Your task to perform on an android device: Open Google Chrome and click the shortcut for Amazon.com Image 0: 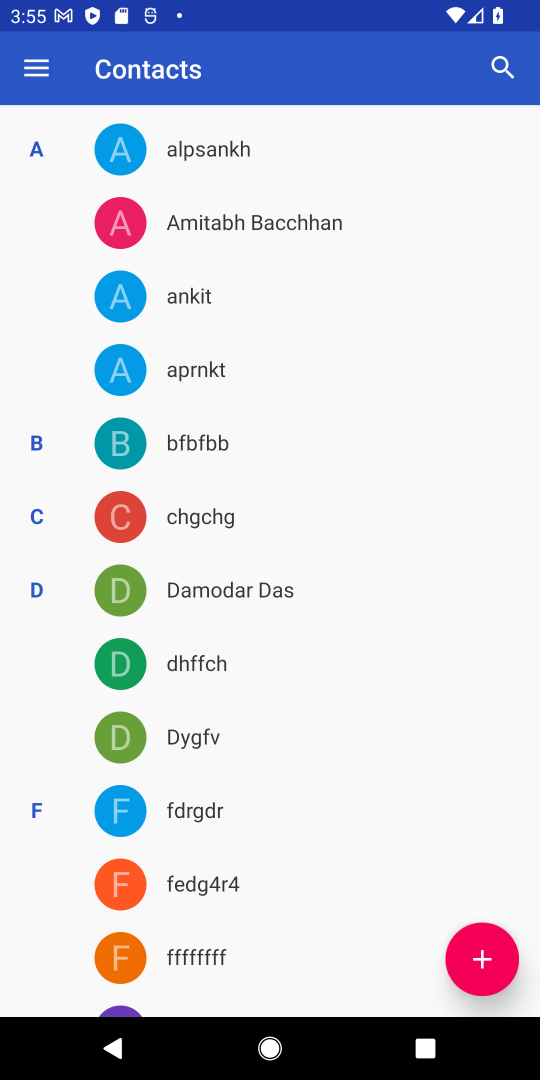
Step 0: press home button
Your task to perform on an android device: Open Google Chrome and click the shortcut for Amazon.com Image 1: 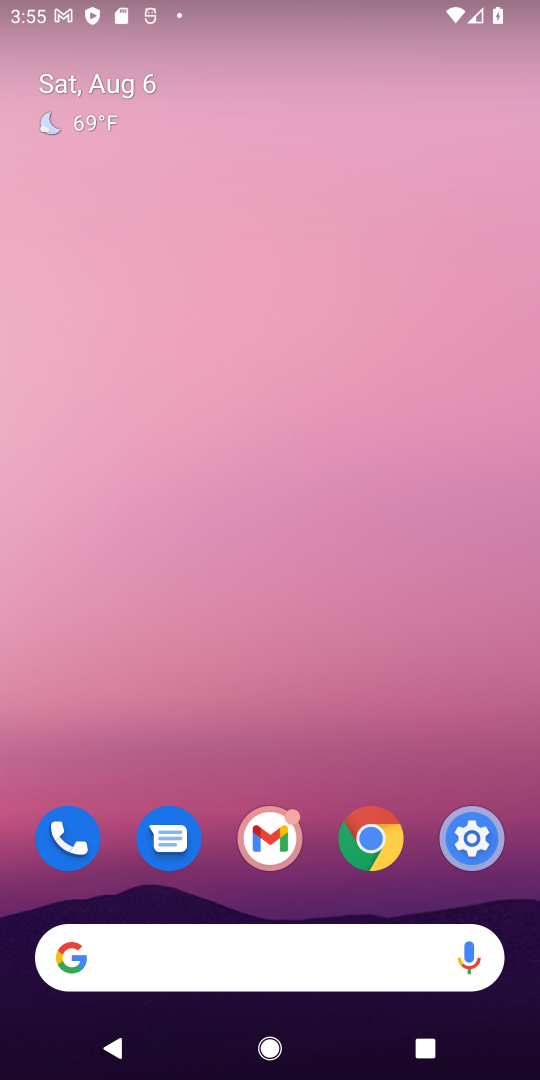
Step 1: click (375, 842)
Your task to perform on an android device: Open Google Chrome and click the shortcut for Amazon.com Image 2: 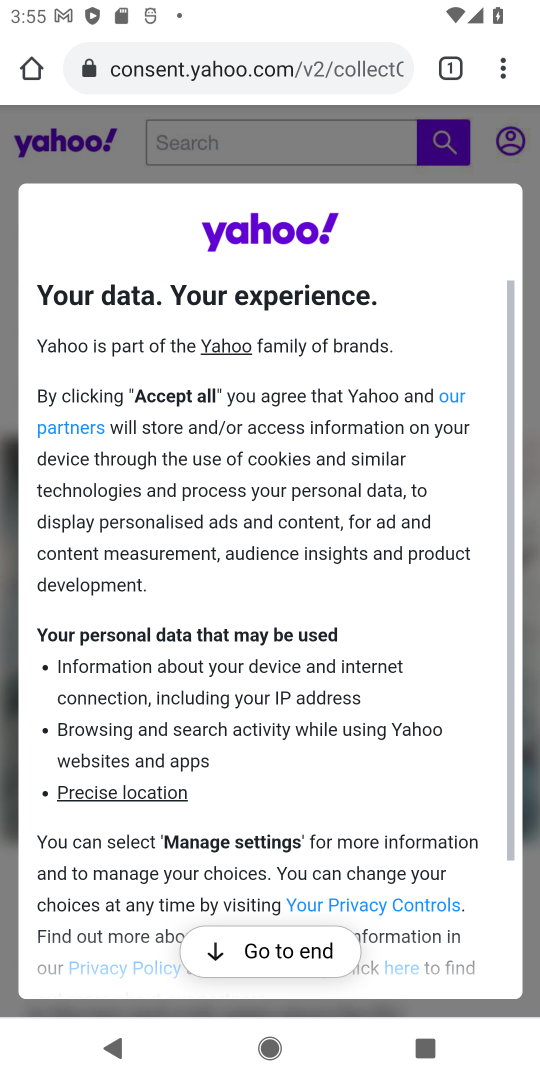
Step 2: click (457, 72)
Your task to perform on an android device: Open Google Chrome and click the shortcut for Amazon.com Image 3: 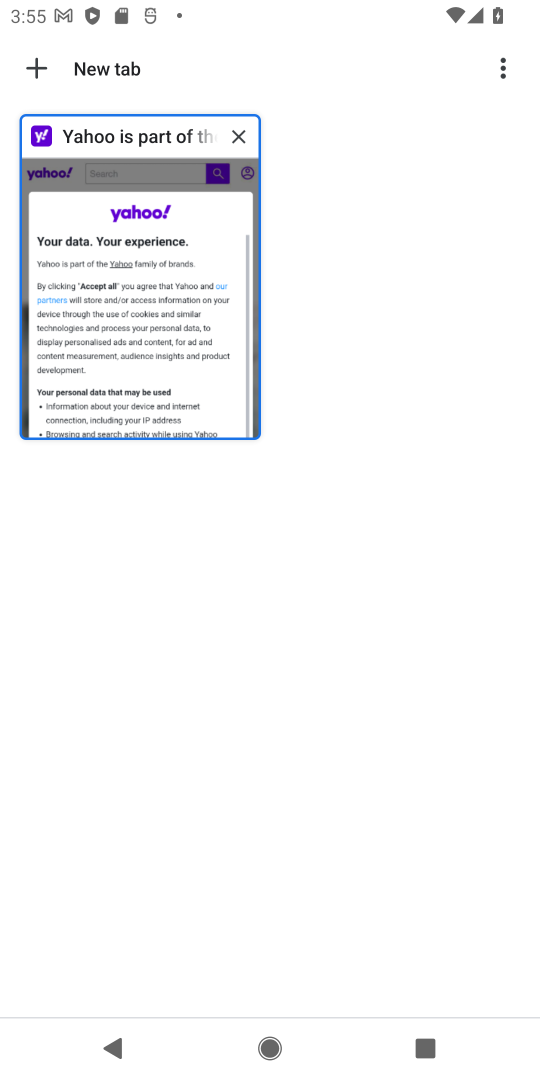
Step 3: click (243, 129)
Your task to perform on an android device: Open Google Chrome and click the shortcut for Amazon.com Image 4: 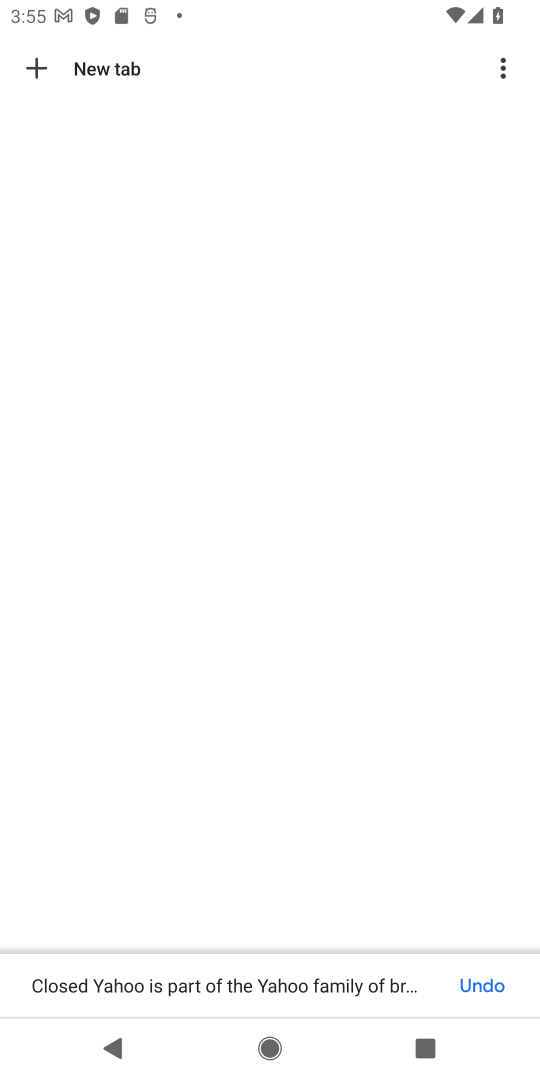
Step 4: click (36, 72)
Your task to perform on an android device: Open Google Chrome and click the shortcut for Amazon.com Image 5: 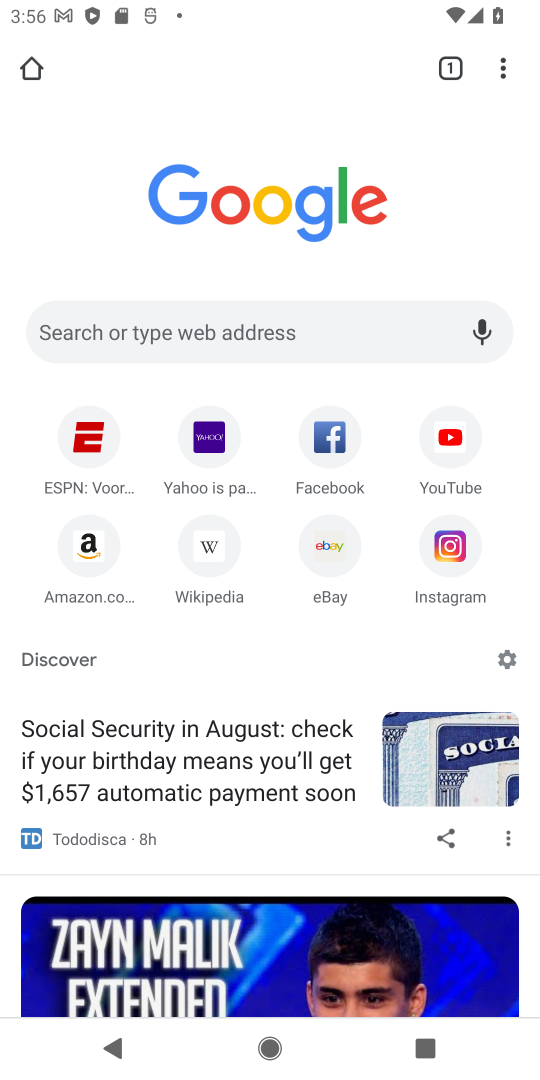
Step 5: click (96, 531)
Your task to perform on an android device: Open Google Chrome and click the shortcut for Amazon.com Image 6: 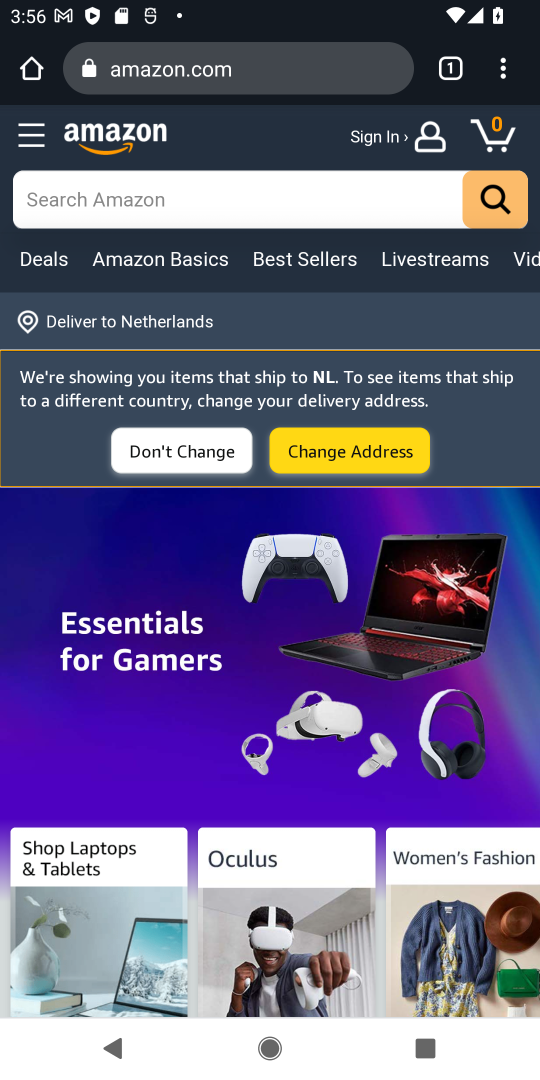
Step 6: task complete